Your task to perform on an android device: open app "Spotify: Music and Podcasts" (install if not already installed) Image 0: 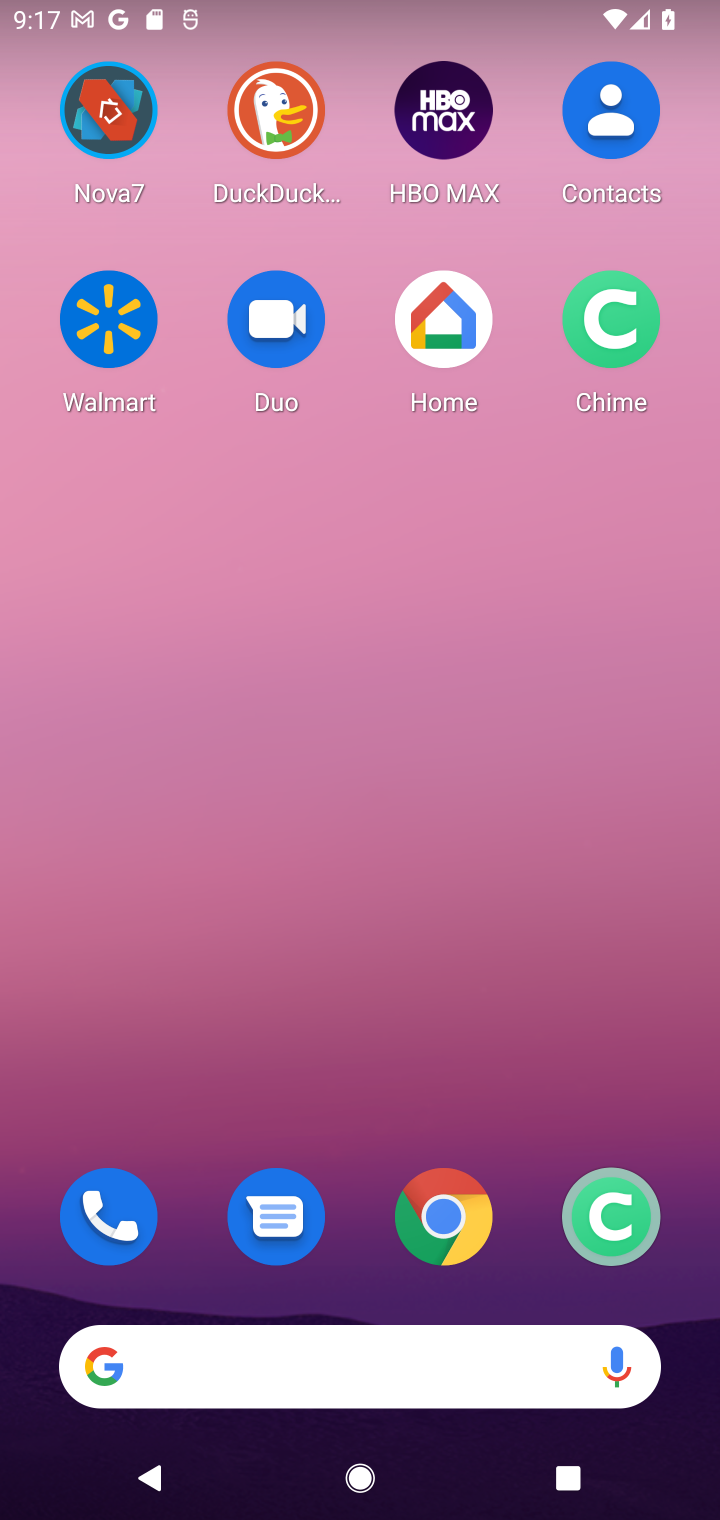
Step 0: press home button
Your task to perform on an android device: open app "Spotify: Music and Podcasts" (install if not already installed) Image 1: 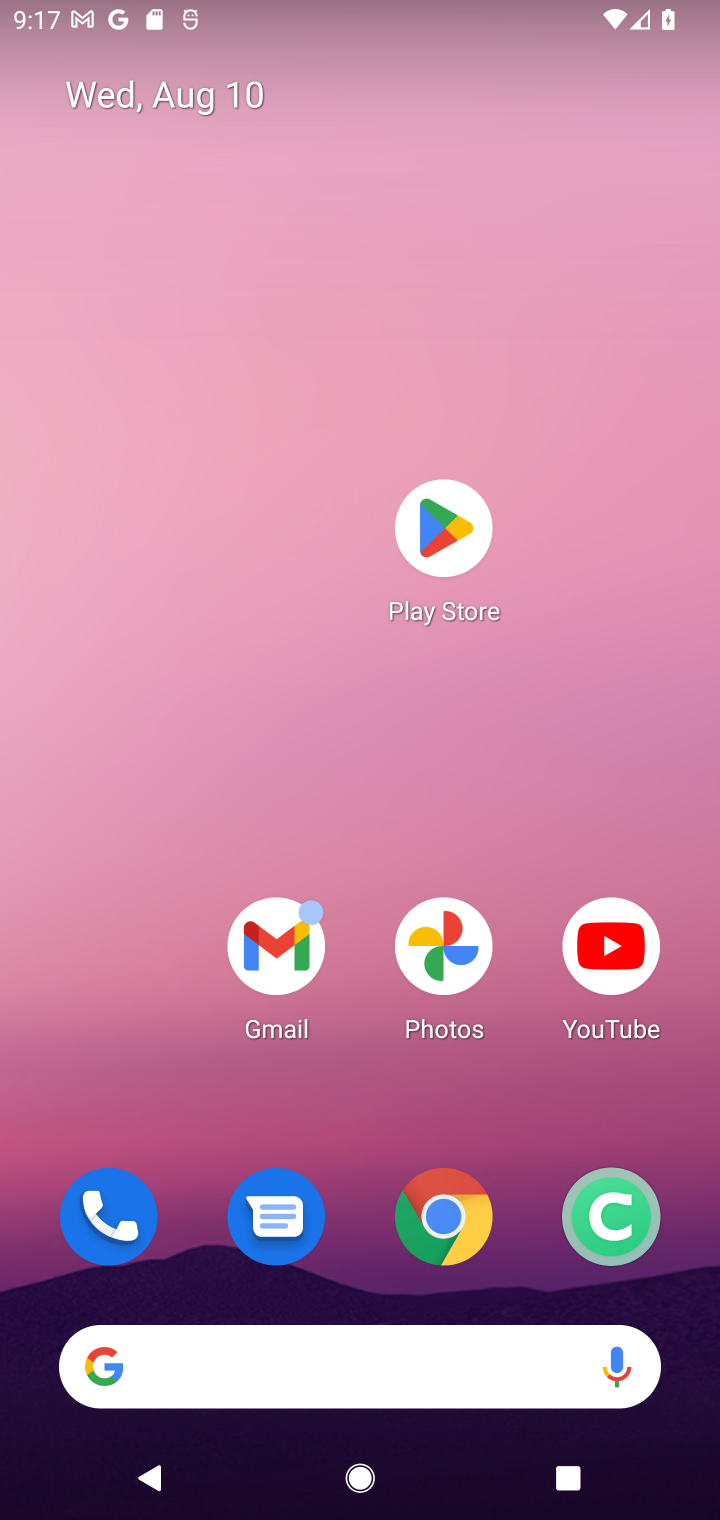
Step 1: click (450, 522)
Your task to perform on an android device: open app "Spotify: Music and Podcasts" (install if not already installed) Image 2: 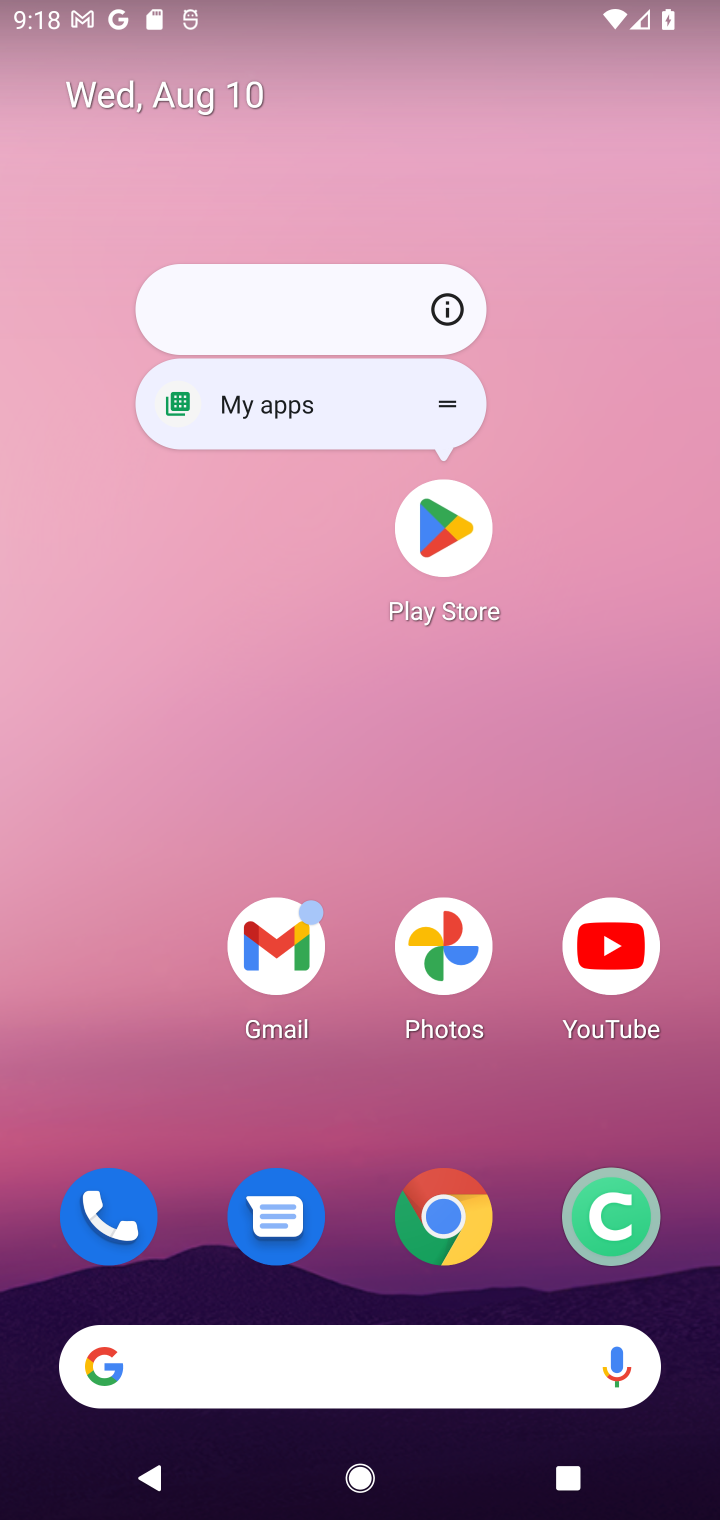
Step 2: click (450, 526)
Your task to perform on an android device: open app "Spotify: Music and Podcasts" (install if not already installed) Image 3: 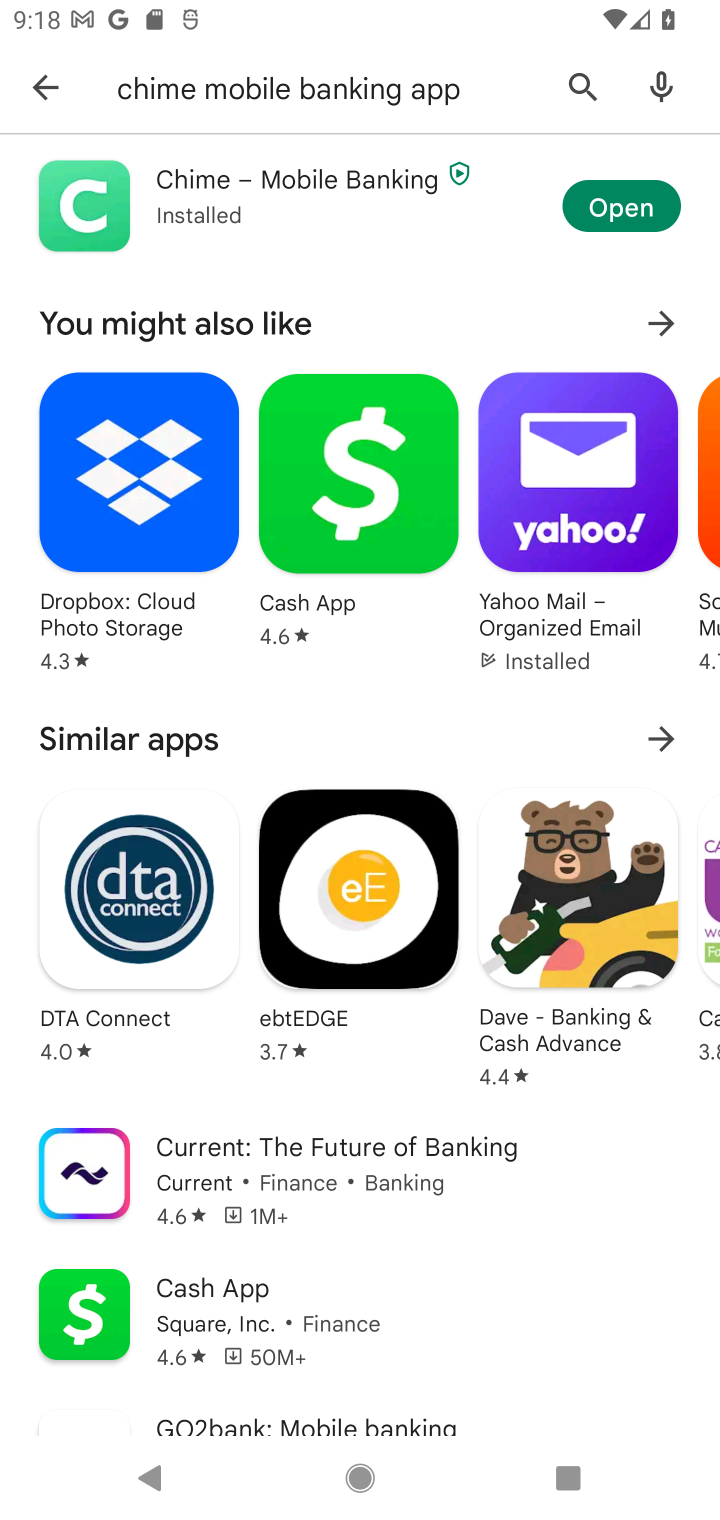
Step 3: click (575, 81)
Your task to perform on an android device: open app "Spotify: Music and Podcasts" (install if not already installed) Image 4: 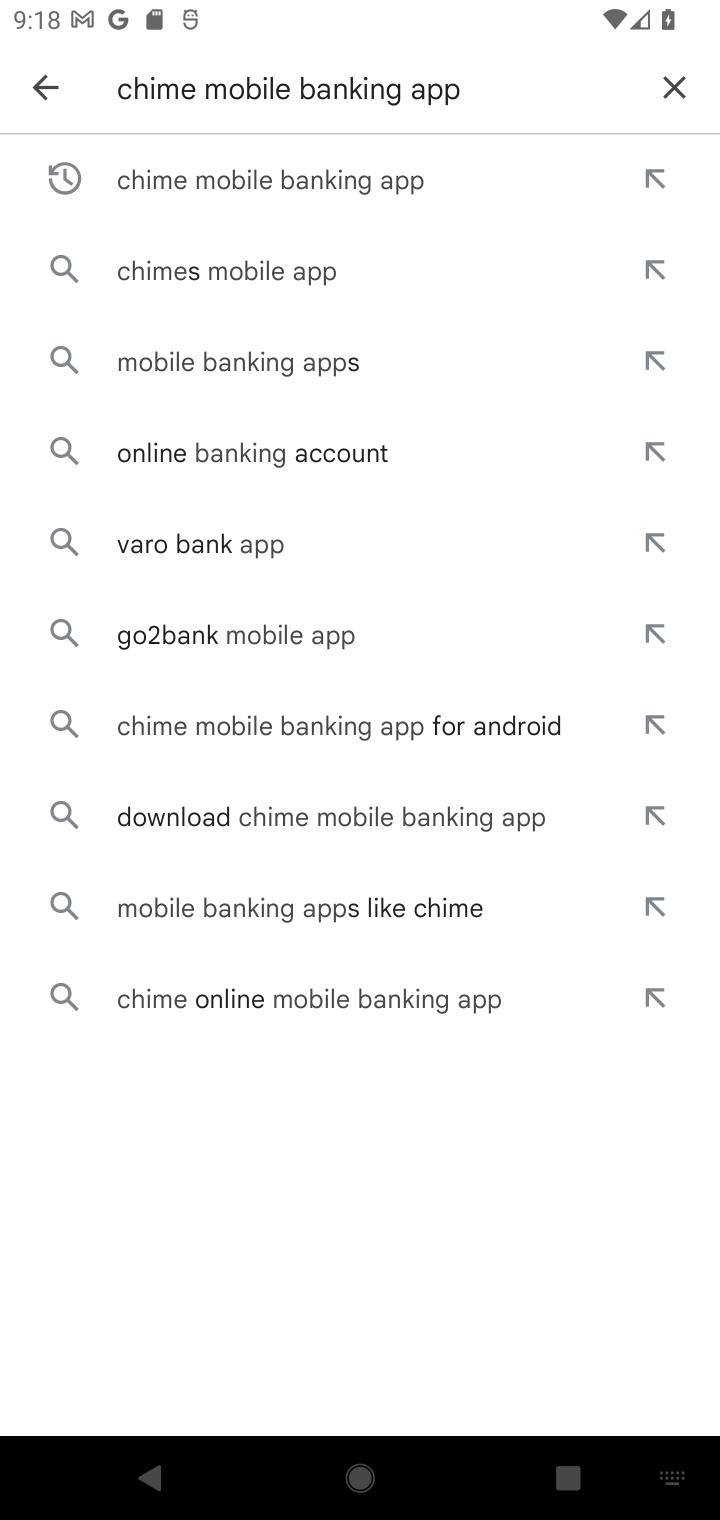
Step 4: click (693, 79)
Your task to perform on an android device: open app "Spotify: Music and Podcasts" (install if not already installed) Image 5: 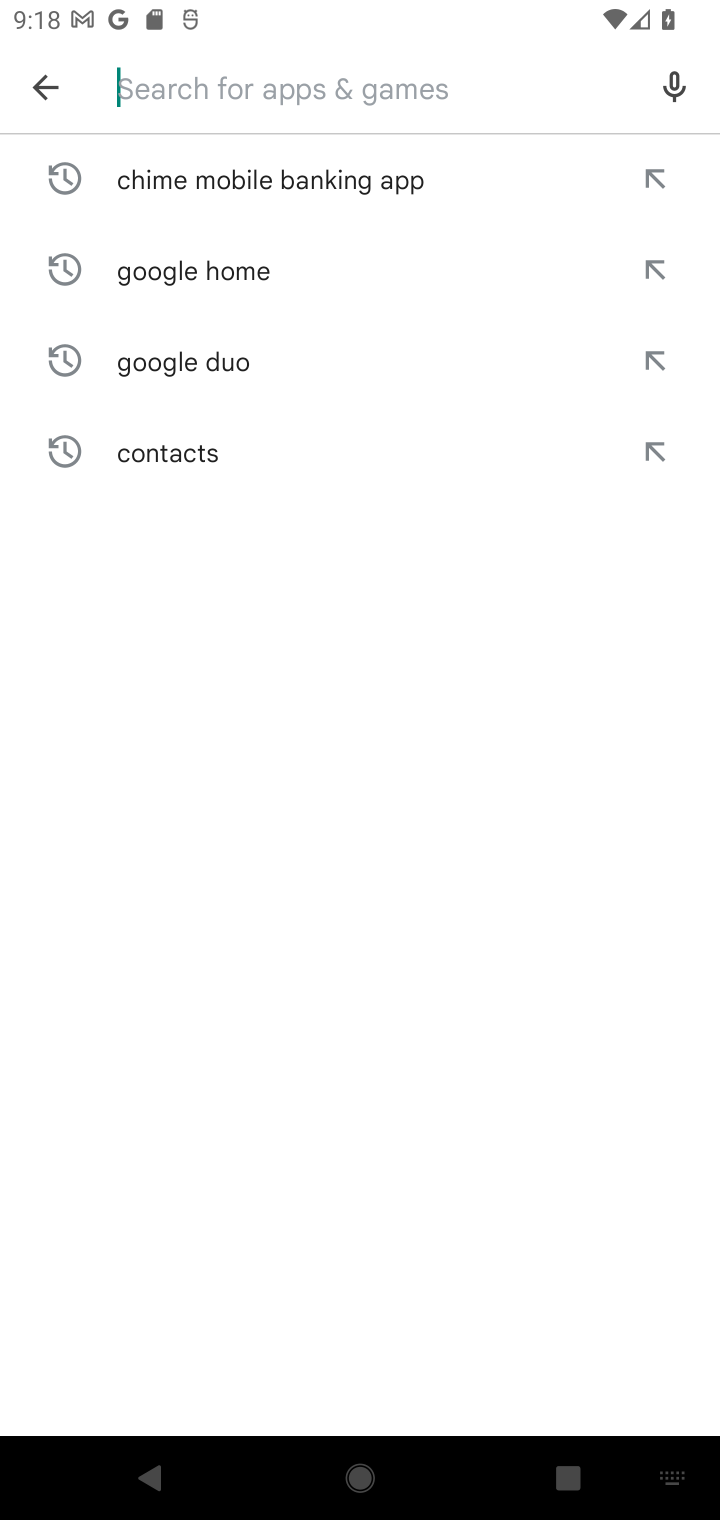
Step 5: type "Spotify: Music and Podcasts"
Your task to perform on an android device: open app "Spotify: Music and Podcasts" (install if not already installed) Image 6: 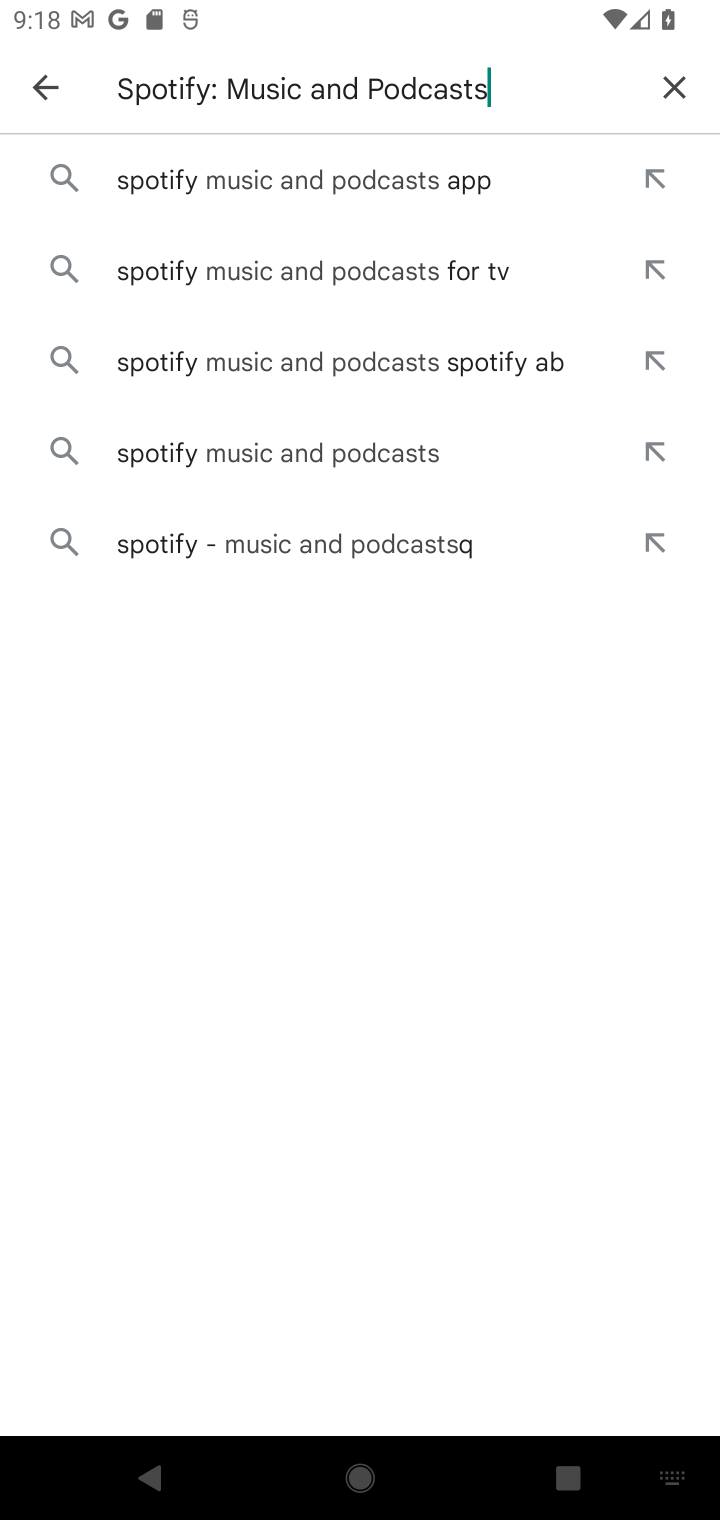
Step 6: click (439, 189)
Your task to perform on an android device: open app "Spotify: Music and Podcasts" (install if not already installed) Image 7: 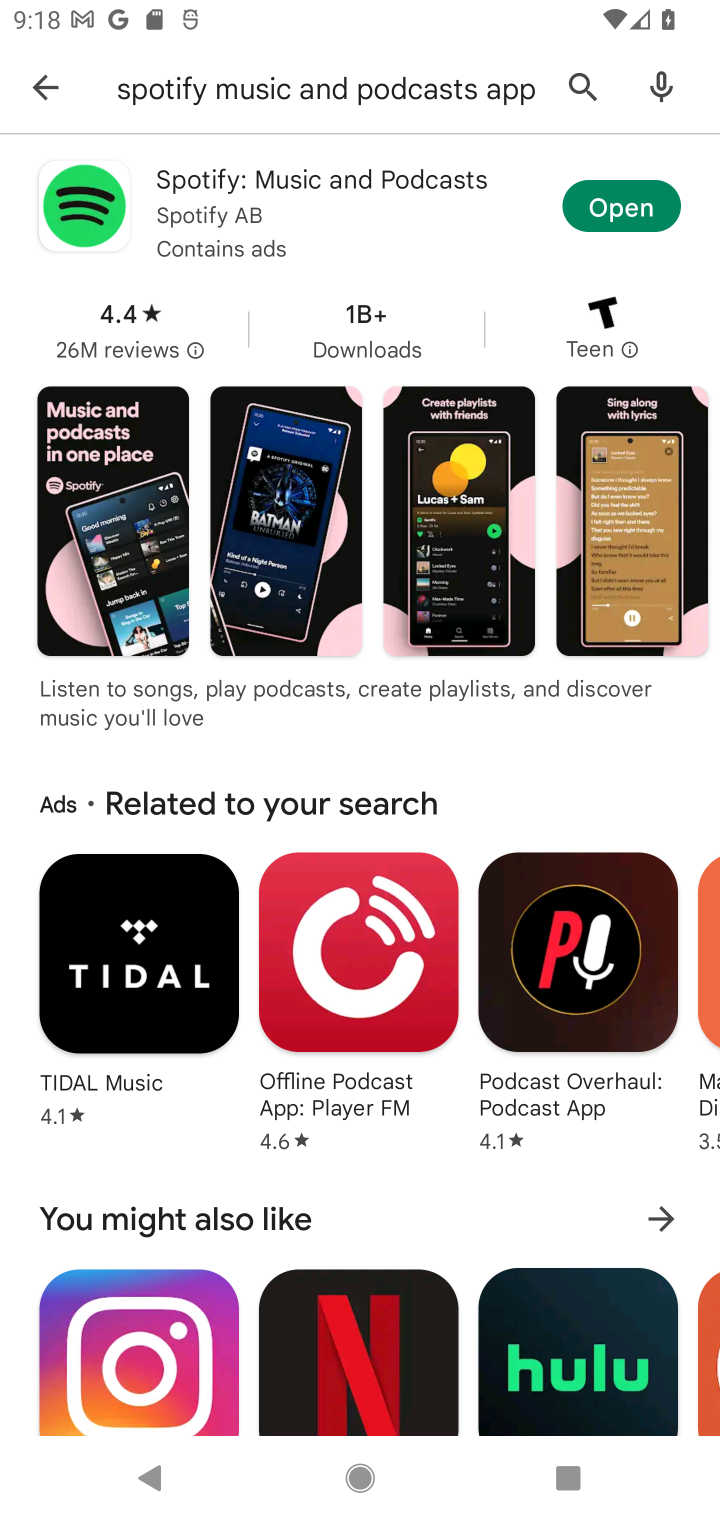
Step 7: click (602, 209)
Your task to perform on an android device: open app "Spotify: Music and Podcasts" (install if not already installed) Image 8: 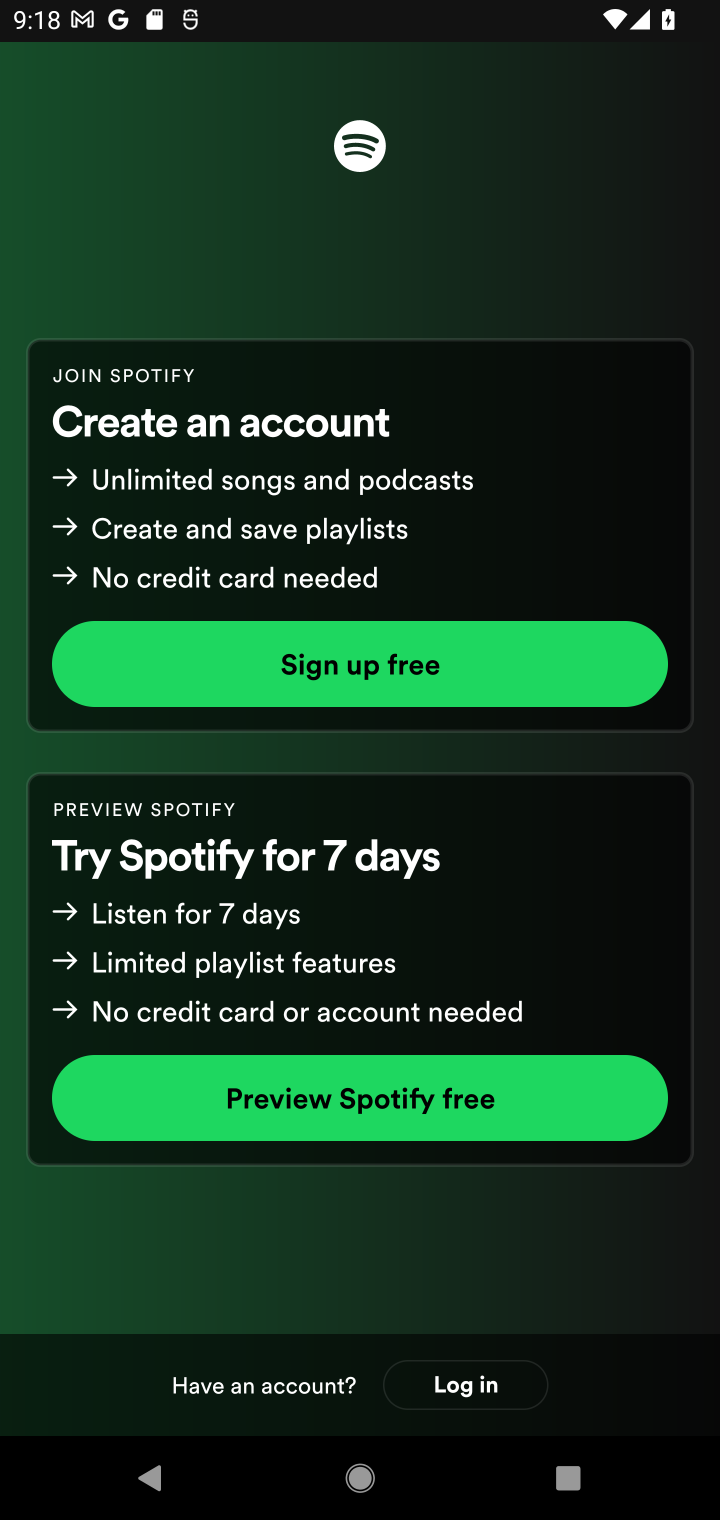
Step 8: task complete